Your task to perform on an android device: Is it going to rain today? Image 0: 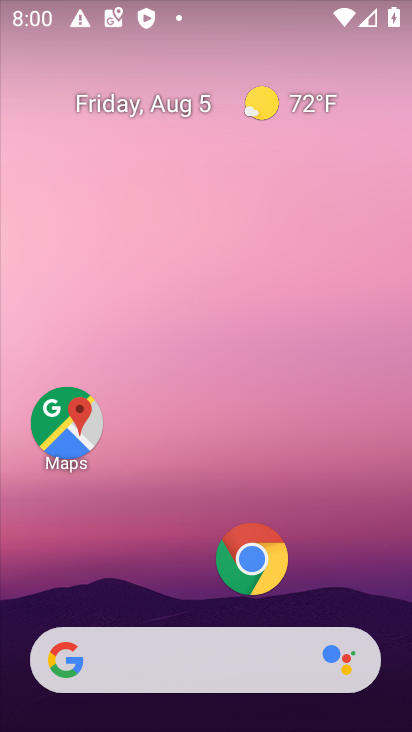
Step 0: click (166, 647)
Your task to perform on an android device: Is it going to rain today? Image 1: 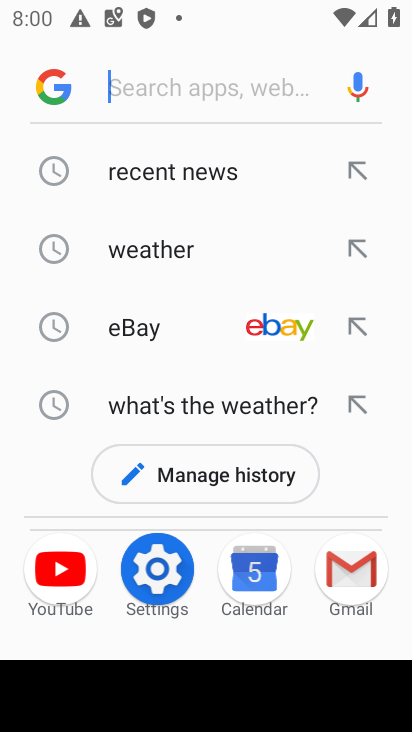
Step 1: click (143, 241)
Your task to perform on an android device: Is it going to rain today? Image 2: 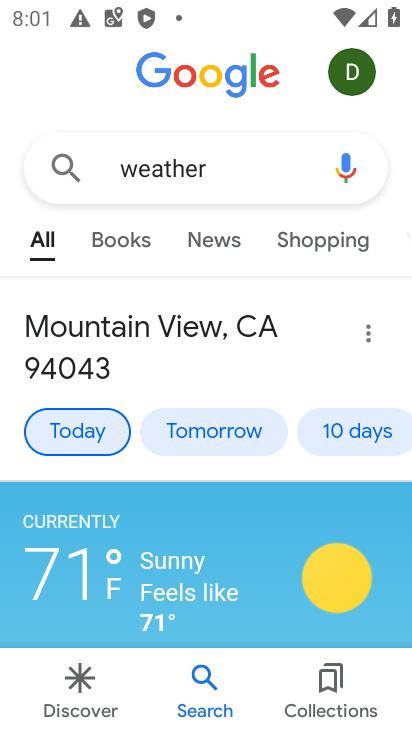
Step 2: task complete